Your task to perform on an android device: uninstall "Microsoft Authenticator" Image 0: 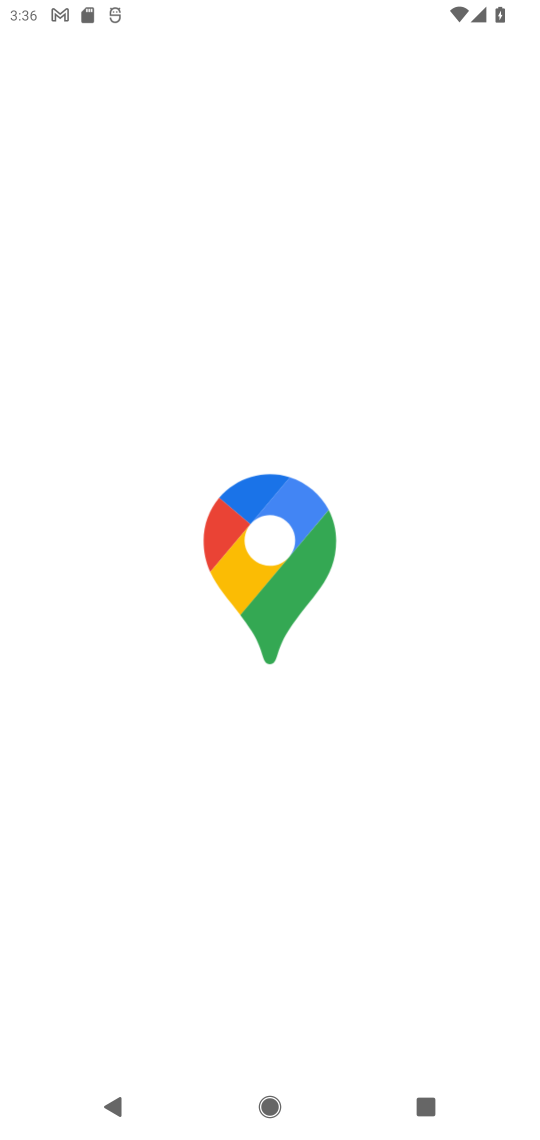
Step 0: press back button
Your task to perform on an android device: uninstall "Microsoft Authenticator" Image 1: 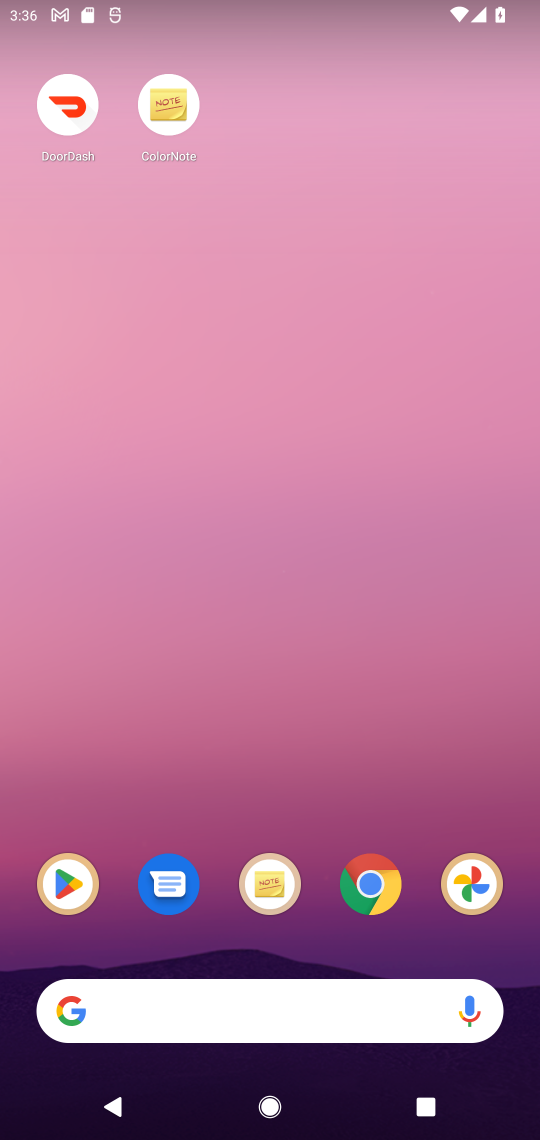
Step 1: drag from (287, 605) to (287, 240)
Your task to perform on an android device: uninstall "Microsoft Authenticator" Image 2: 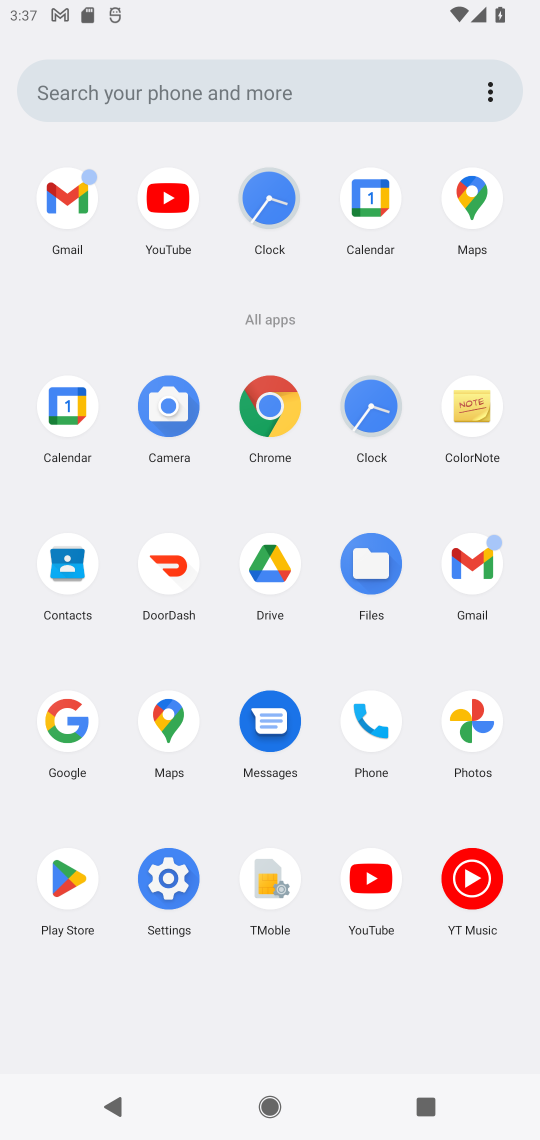
Step 2: click (62, 878)
Your task to perform on an android device: uninstall "Microsoft Authenticator" Image 3: 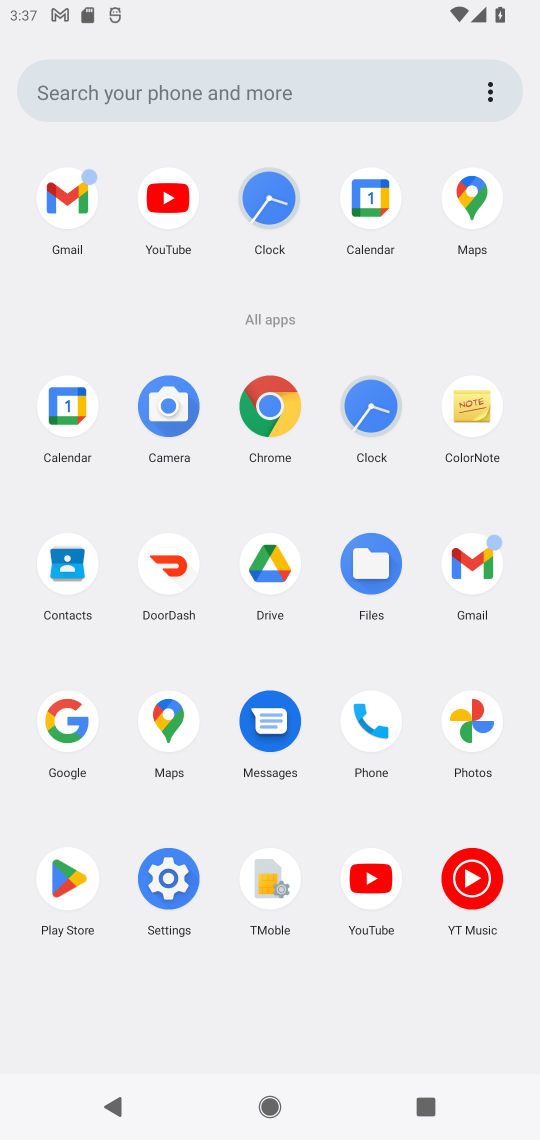
Step 3: drag from (71, 876) to (105, 921)
Your task to perform on an android device: uninstall "Microsoft Authenticator" Image 4: 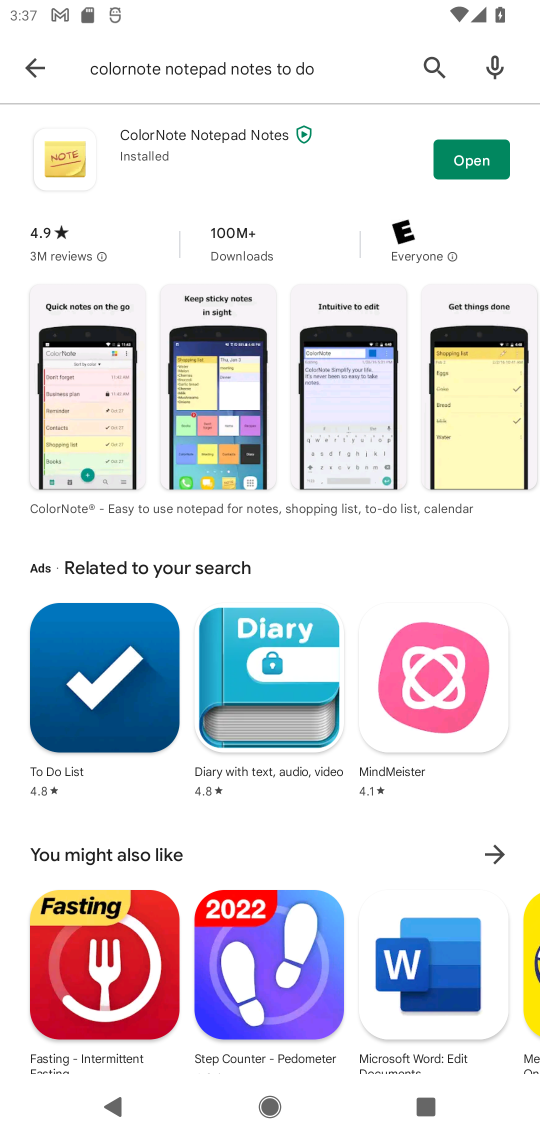
Step 4: click (39, 69)
Your task to perform on an android device: uninstall "Microsoft Authenticator" Image 5: 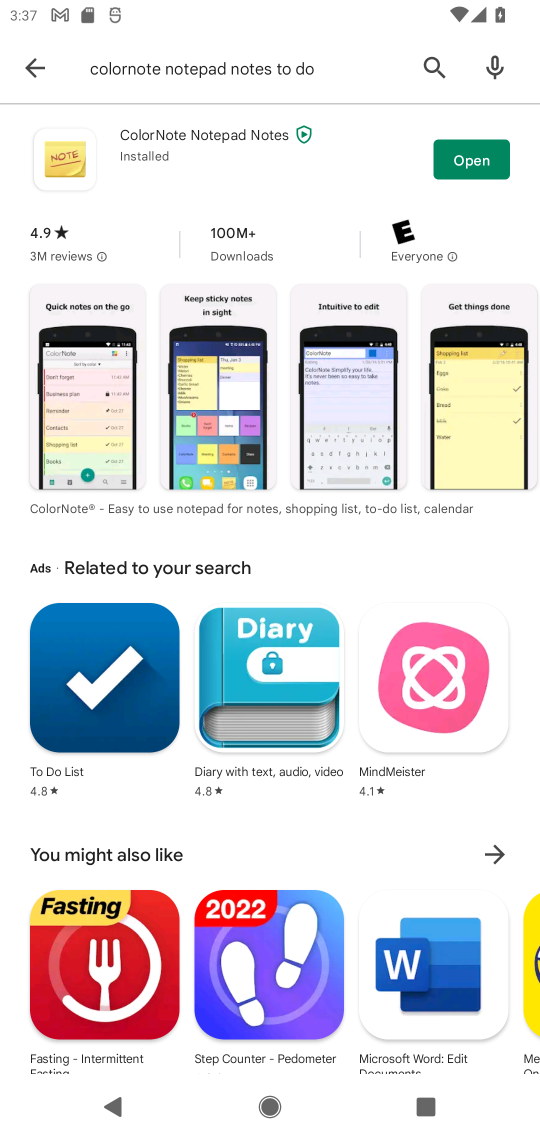
Step 5: click (39, 69)
Your task to perform on an android device: uninstall "Microsoft Authenticator" Image 6: 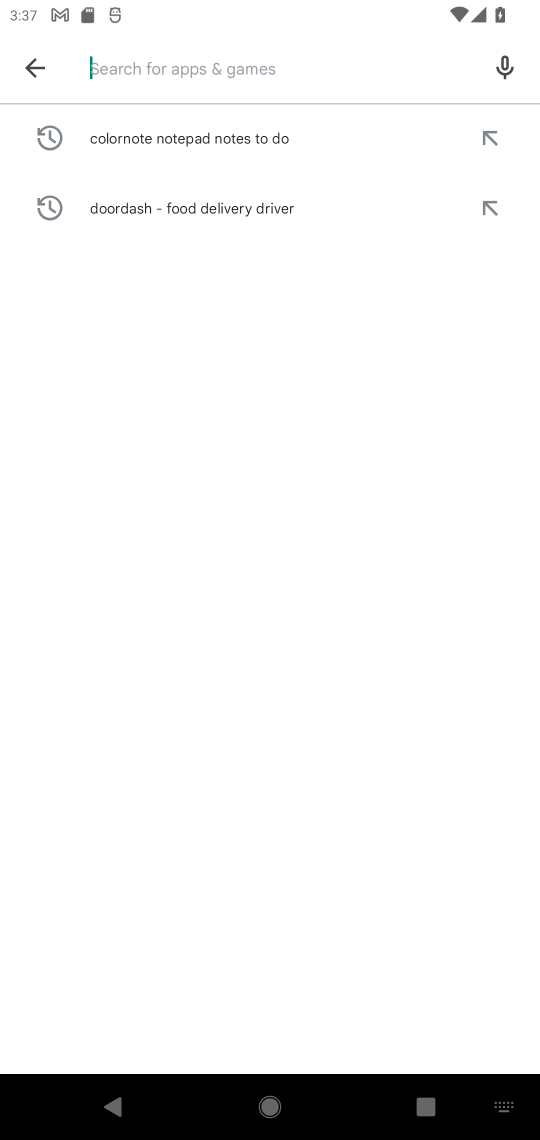
Step 6: type "microsoft authenticator"
Your task to perform on an android device: uninstall "Microsoft Authenticator" Image 7: 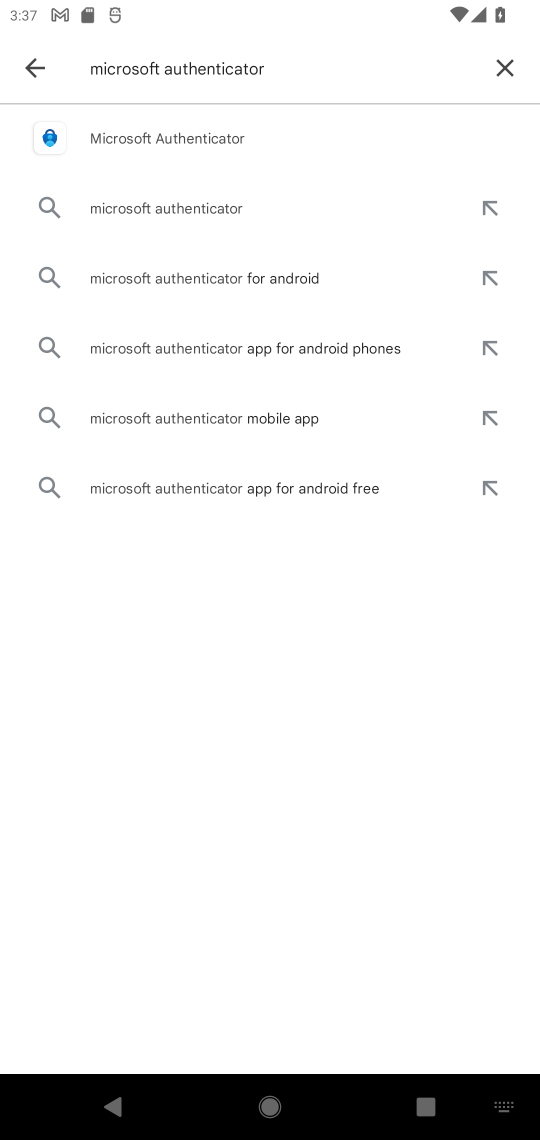
Step 7: click (153, 142)
Your task to perform on an android device: uninstall "Microsoft Authenticator" Image 8: 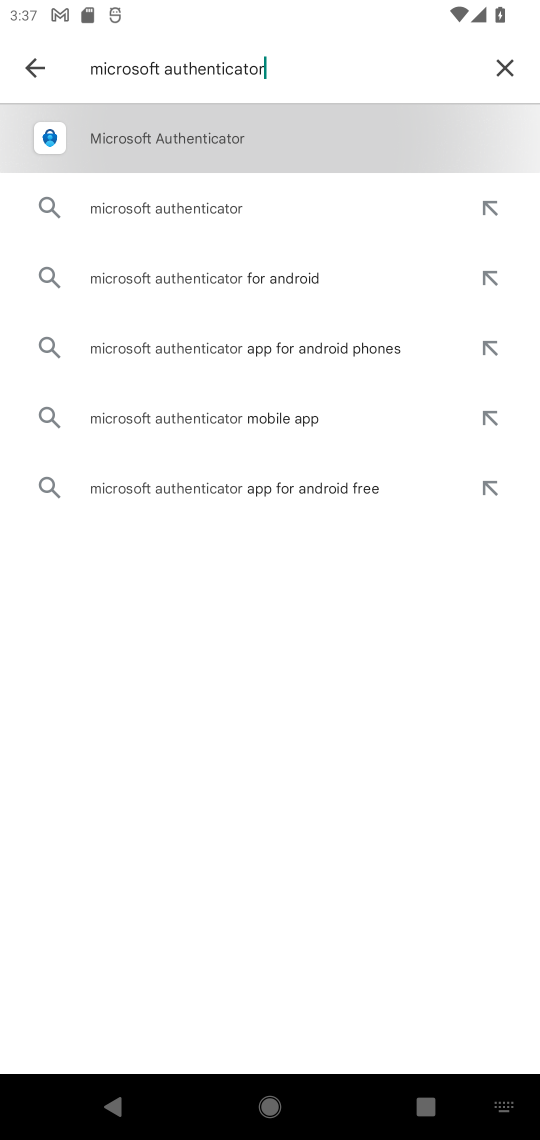
Step 8: click (165, 138)
Your task to perform on an android device: uninstall "Microsoft Authenticator" Image 9: 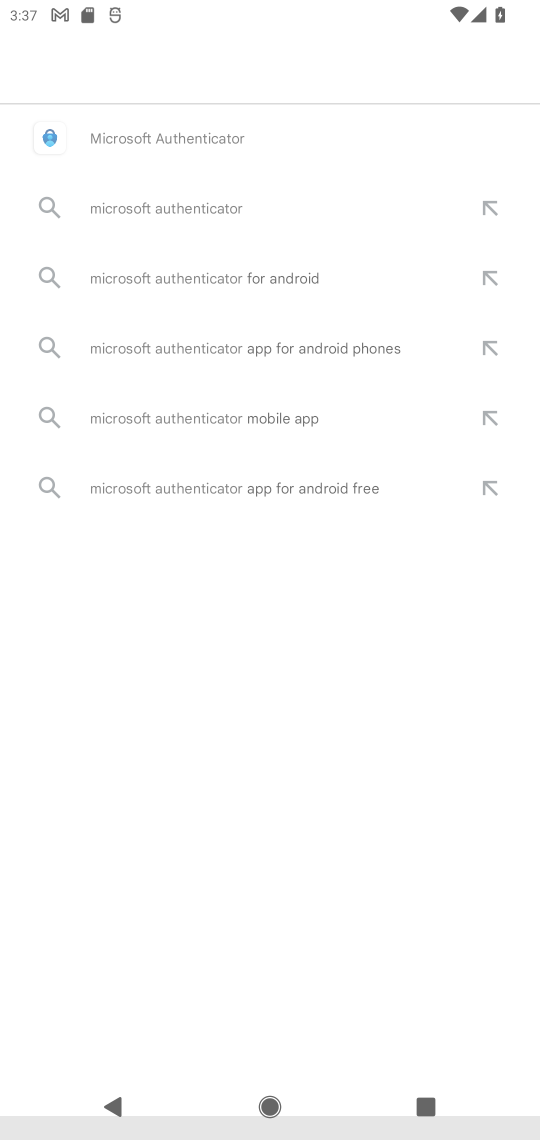
Step 9: click (181, 139)
Your task to perform on an android device: uninstall "Microsoft Authenticator" Image 10: 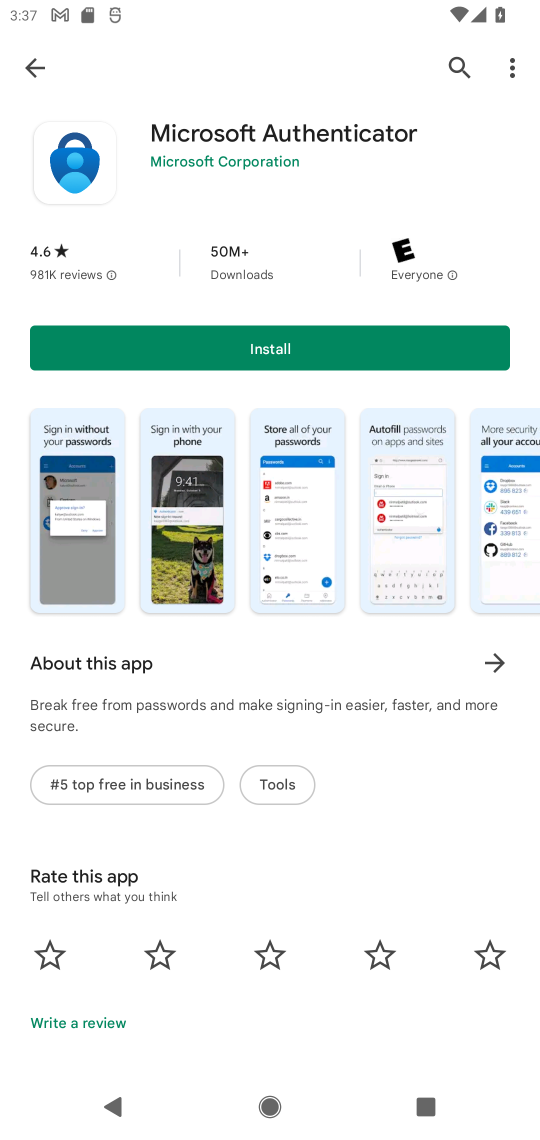
Step 10: click (313, 373)
Your task to perform on an android device: uninstall "Microsoft Authenticator" Image 11: 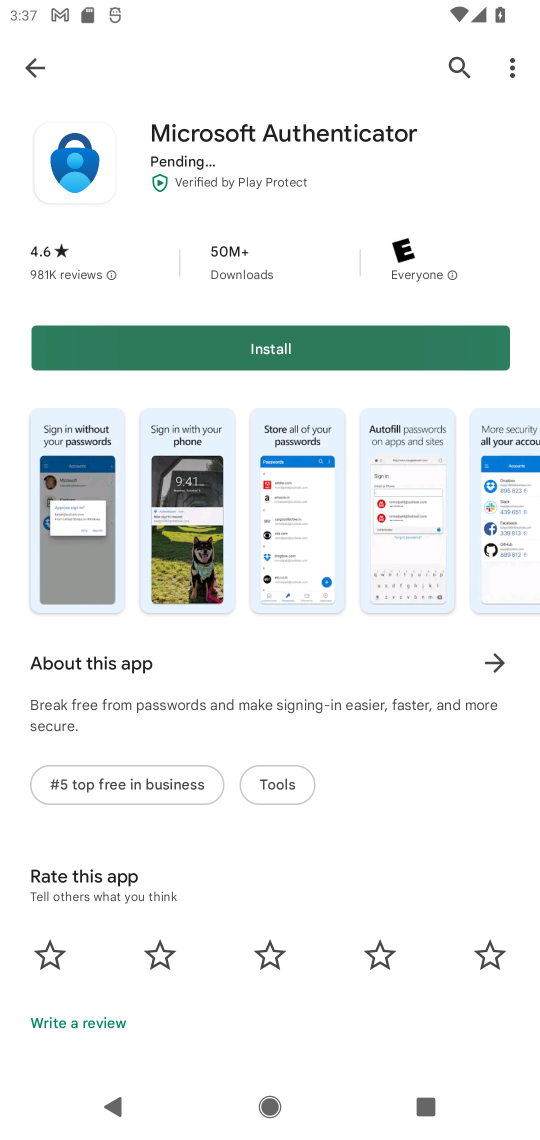
Step 11: click (305, 350)
Your task to perform on an android device: uninstall "Microsoft Authenticator" Image 12: 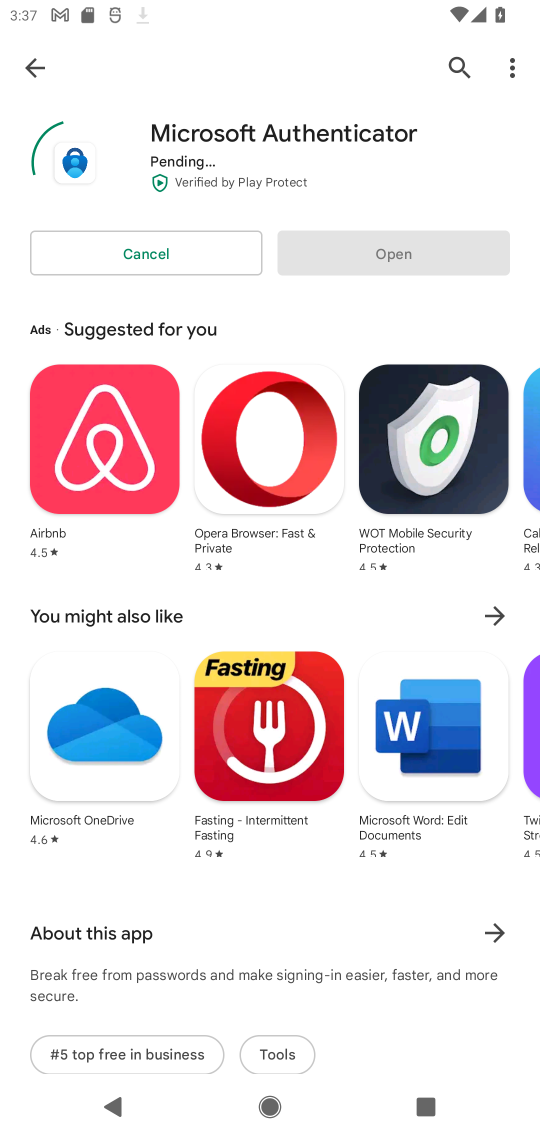
Step 12: click (164, 253)
Your task to perform on an android device: uninstall "Microsoft Authenticator" Image 13: 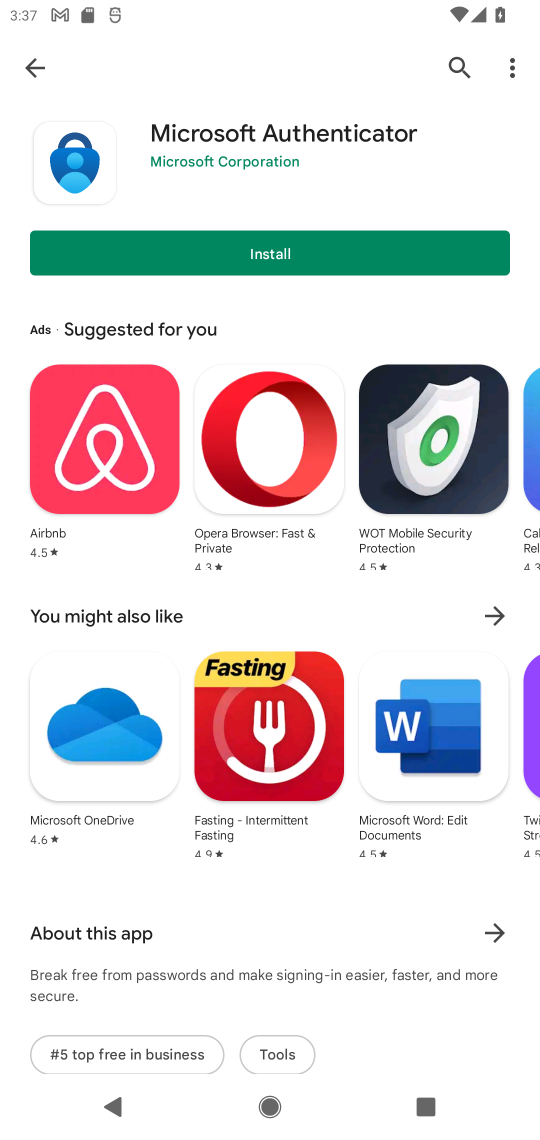
Step 13: task complete